Your task to perform on an android device: Open location settings Image 0: 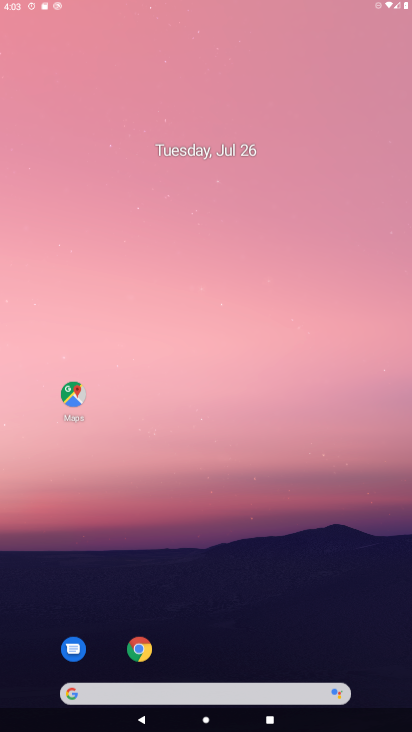
Step 0: drag from (333, 609) to (263, 98)
Your task to perform on an android device: Open location settings Image 1: 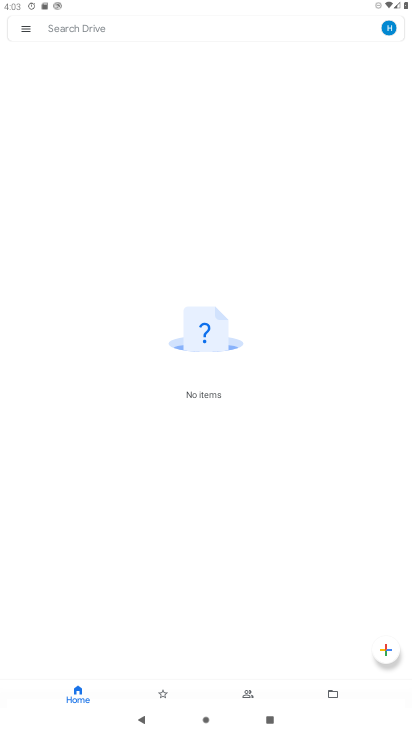
Step 1: press home button
Your task to perform on an android device: Open location settings Image 2: 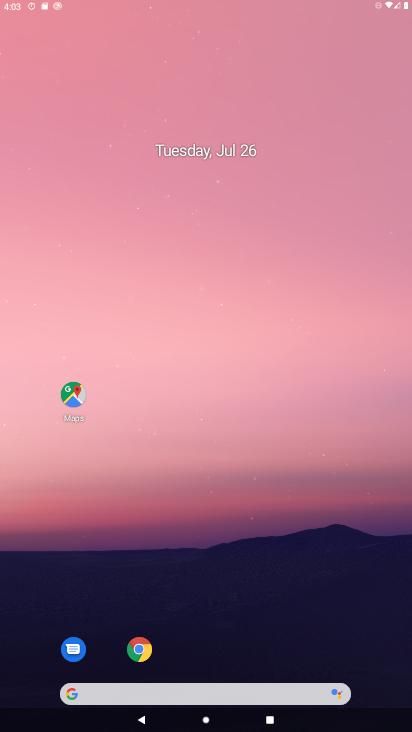
Step 2: drag from (375, 672) to (216, 83)
Your task to perform on an android device: Open location settings Image 3: 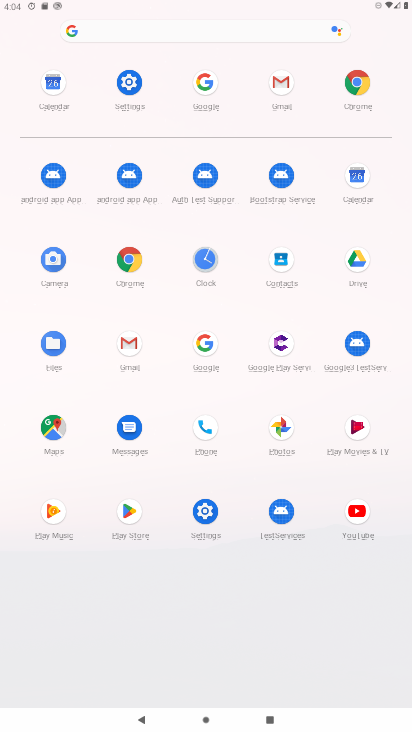
Step 3: click (198, 528)
Your task to perform on an android device: Open location settings Image 4: 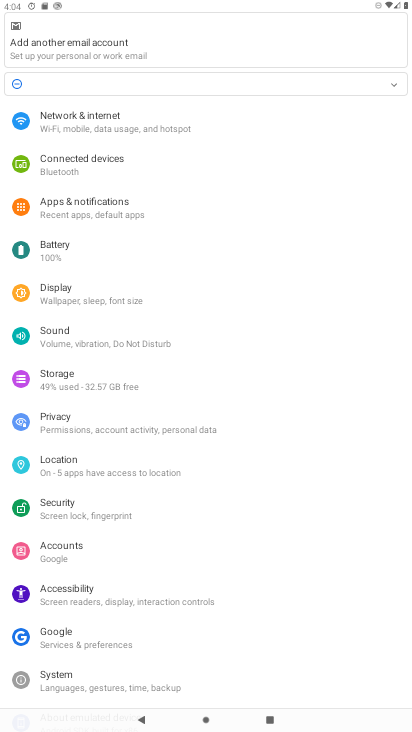
Step 4: click (82, 473)
Your task to perform on an android device: Open location settings Image 5: 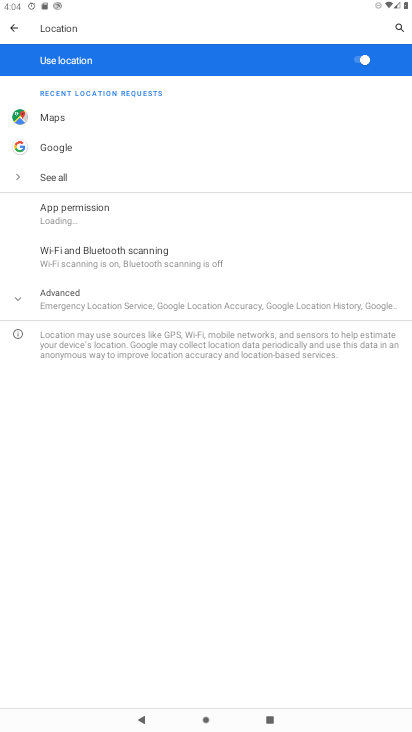
Step 5: task complete